Your task to perform on an android device: choose inbox layout in the gmail app Image 0: 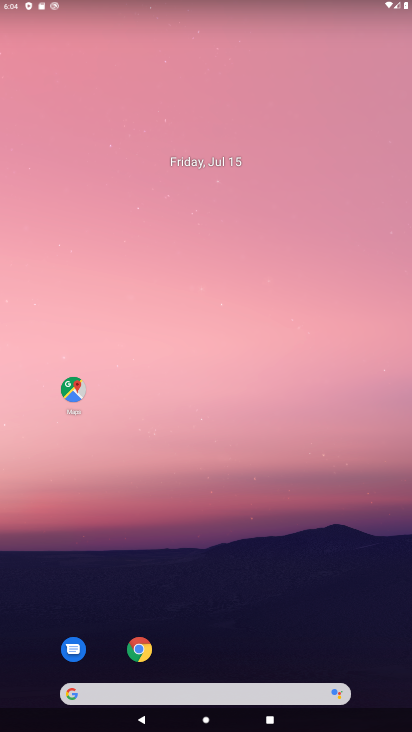
Step 0: press home button
Your task to perform on an android device: choose inbox layout in the gmail app Image 1: 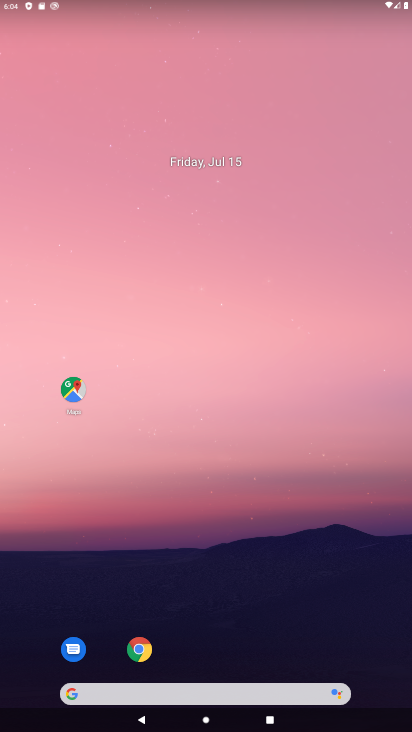
Step 1: drag from (246, 598) to (256, 128)
Your task to perform on an android device: choose inbox layout in the gmail app Image 2: 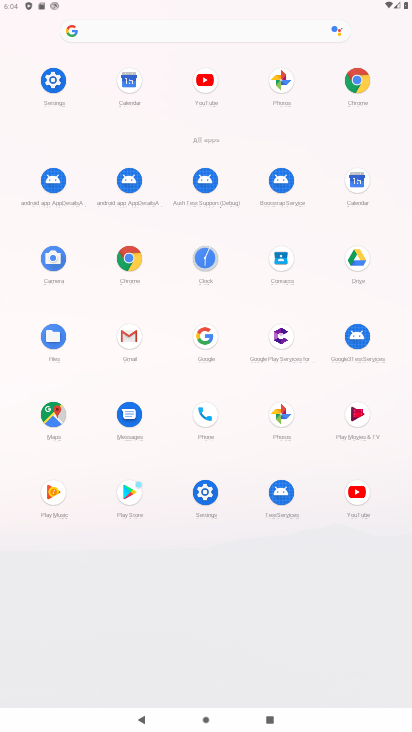
Step 2: click (123, 340)
Your task to perform on an android device: choose inbox layout in the gmail app Image 3: 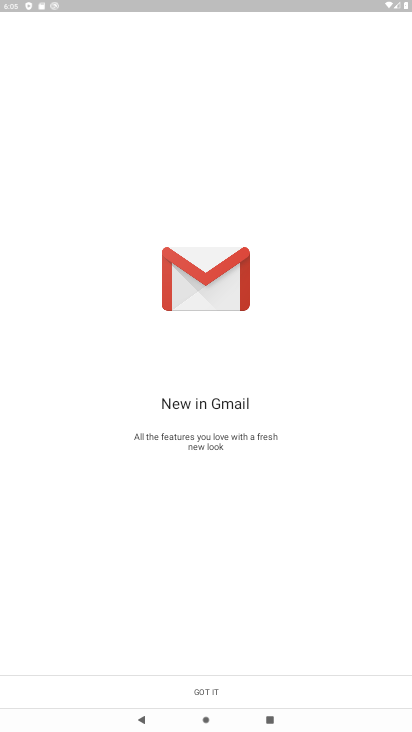
Step 3: click (205, 693)
Your task to perform on an android device: choose inbox layout in the gmail app Image 4: 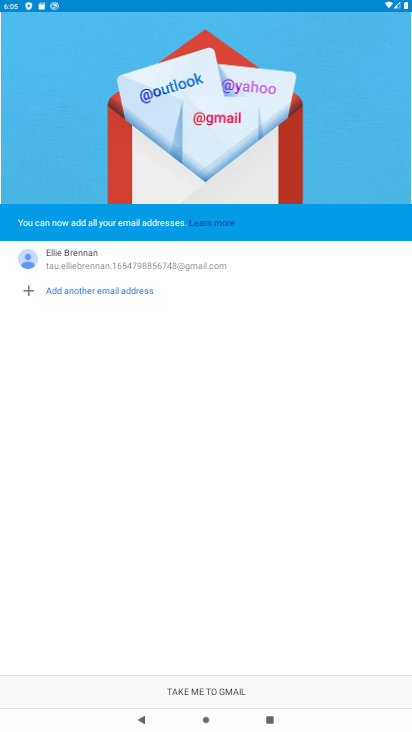
Step 4: click (205, 693)
Your task to perform on an android device: choose inbox layout in the gmail app Image 5: 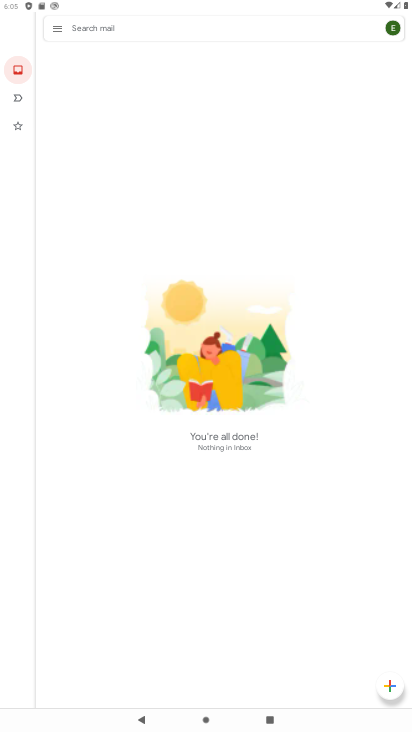
Step 5: click (58, 27)
Your task to perform on an android device: choose inbox layout in the gmail app Image 6: 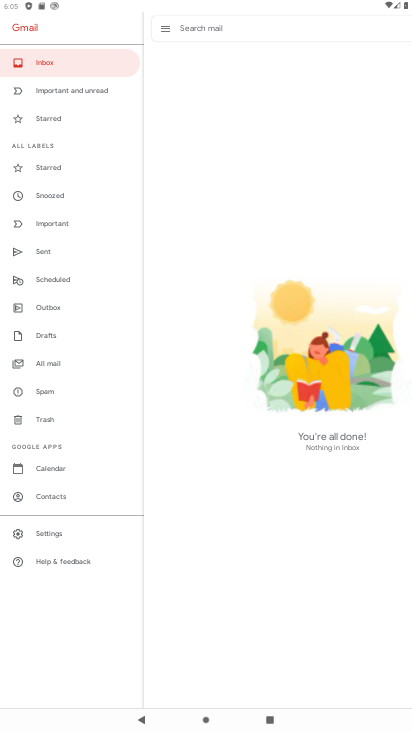
Step 6: click (44, 529)
Your task to perform on an android device: choose inbox layout in the gmail app Image 7: 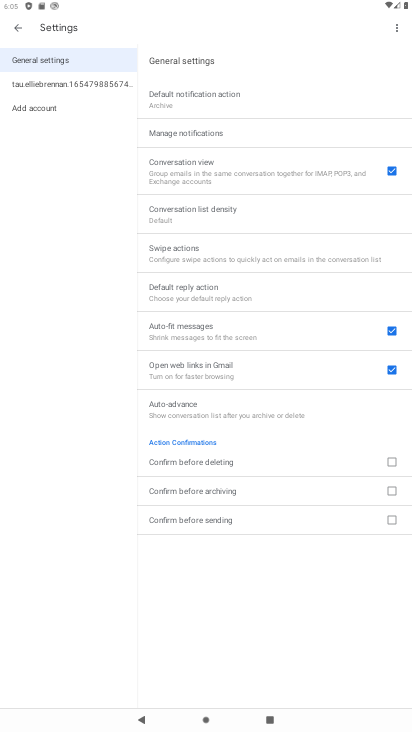
Step 7: click (71, 80)
Your task to perform on an android device: choose inbox layout in the gmail app Image 8: 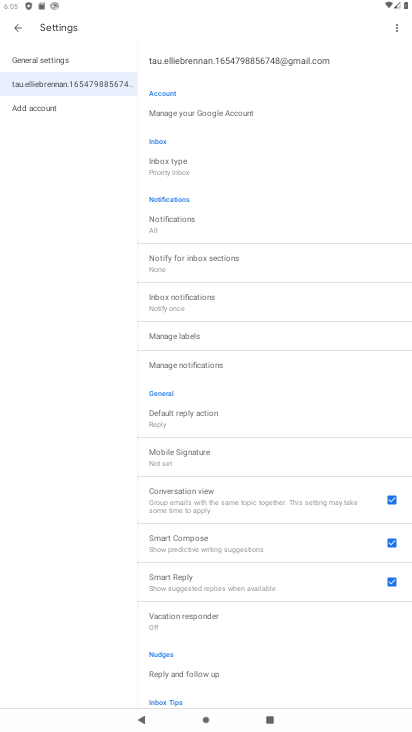
Step 8: click (174, 168)
Your task to perform on an android device: choose inbox layout in the gmail app Image 9: 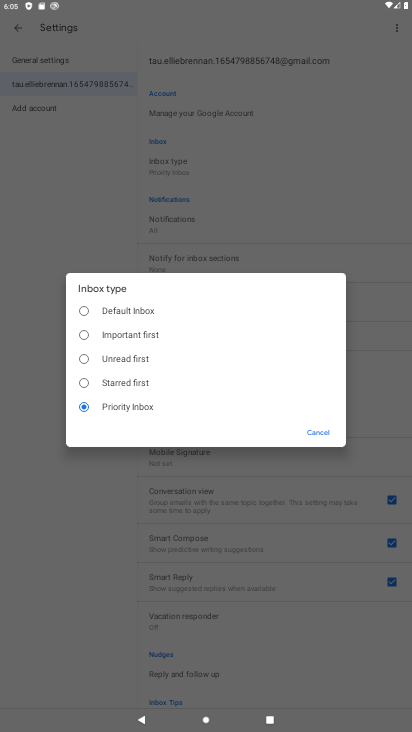
Step 9: click (85, 338)
Your task to perform on an android device: choose inbox layout in the gmail app Image 10: 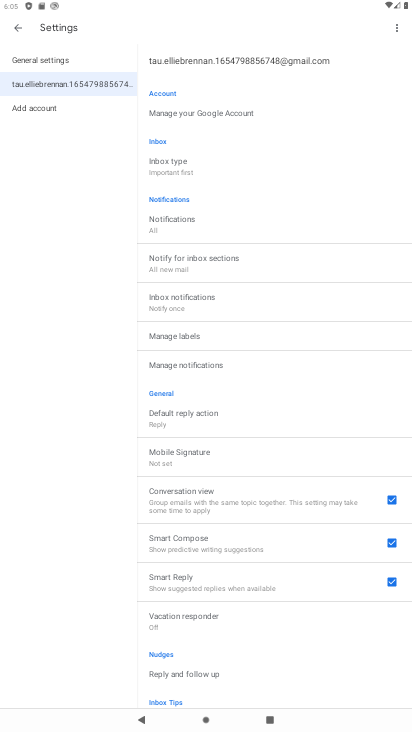
Step 10: task complete